Your task to perform on an android device: Toggle the flashlight Image 0: 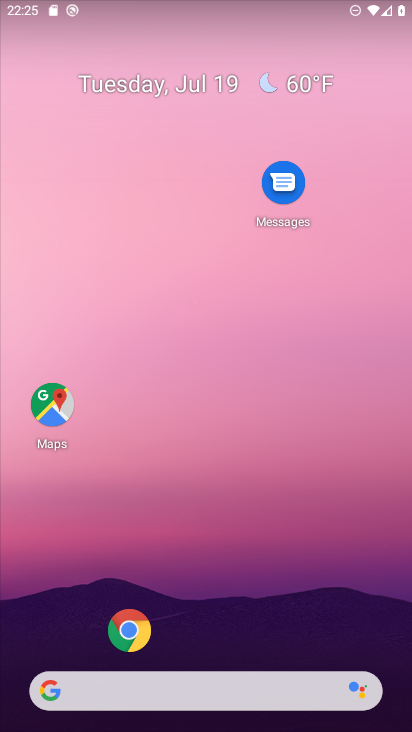
Step 0: drag from (132, 25) to (132, 462)
Your task to perform on an android device: Toggle the flashlight Image 1: 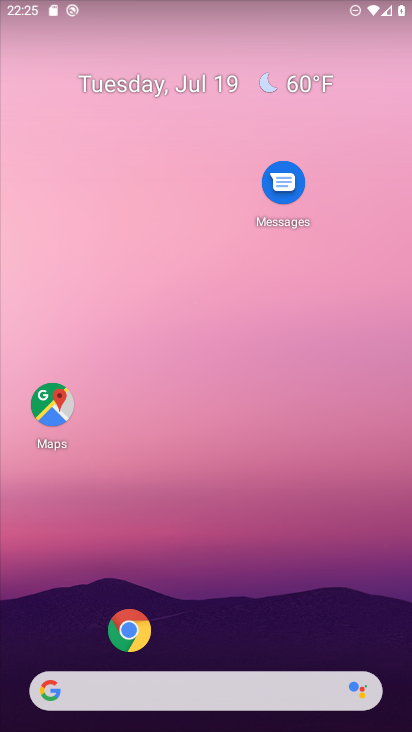
Step 1: task complete